Your task to perform on an android device: Open ESPN.com Image 0: 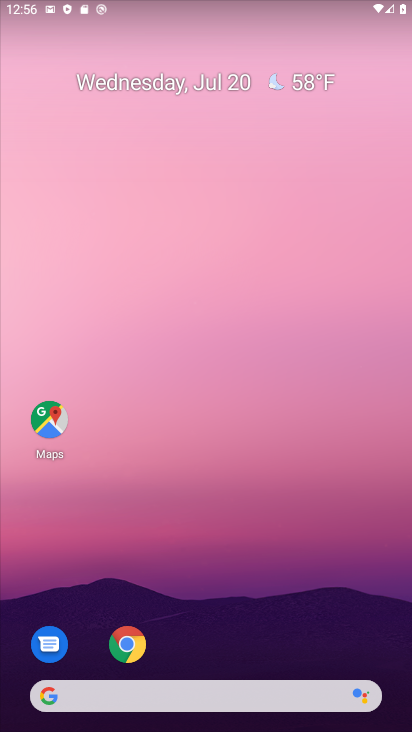
Step 0: drag from (207, 653) to (232, 74)
Your task to perform on an android device: Open ESPN.com Image 1: 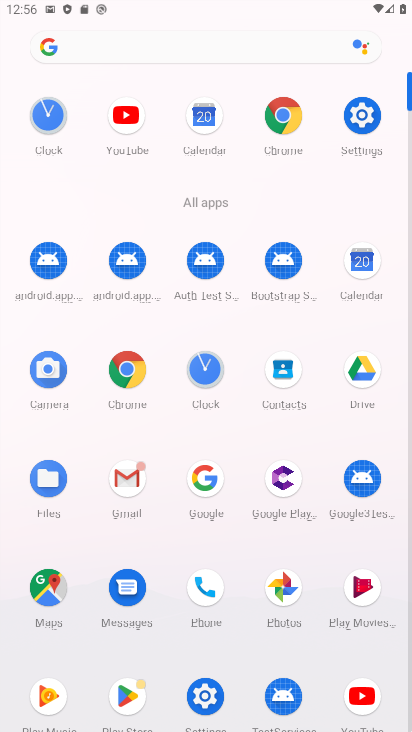
Step 1: click (213, 475)
Your task to perform on an android device: Open ESPN.com Image 2: 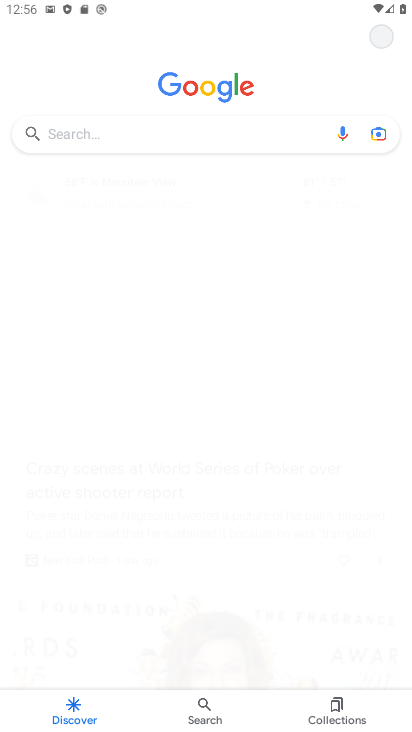
Step 2: click (141, 128)
Your task to perform on an android device: Open ESPN.com Image 3: 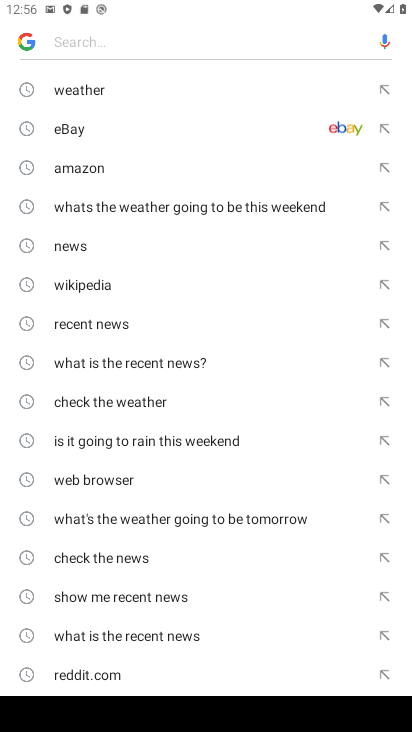
Step 3: type "espn.com"
Your task to perform on an android device: Open ESPN.com Image 4: 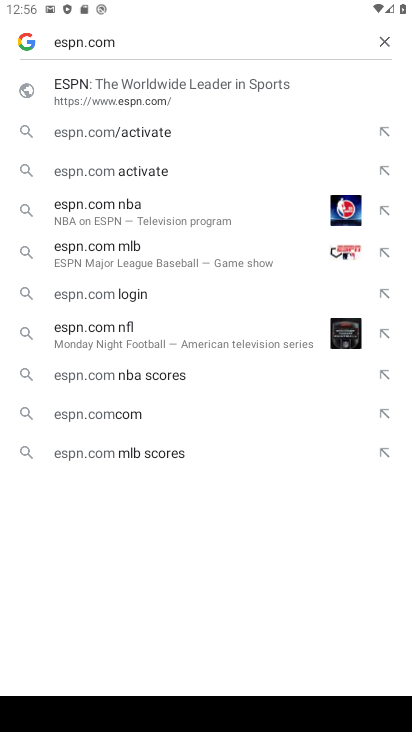
Step 4: click (119, 88)
Your task to perform on an android device: Open ESPN.com Image 5: 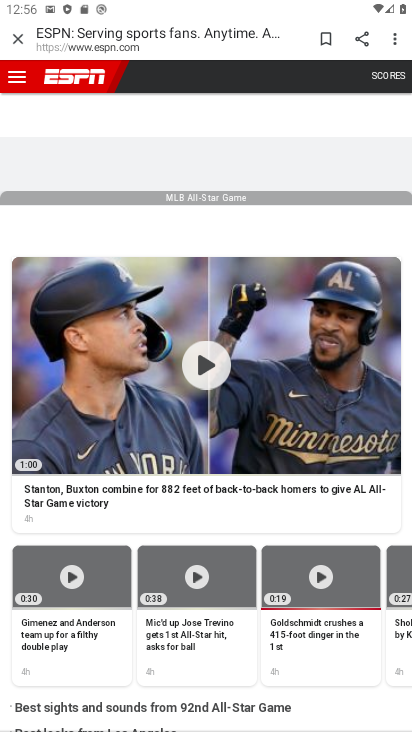
Step 5: task complete